Your task to perform on an android device: Search for seafood restaurants on Google Maps Image 0: 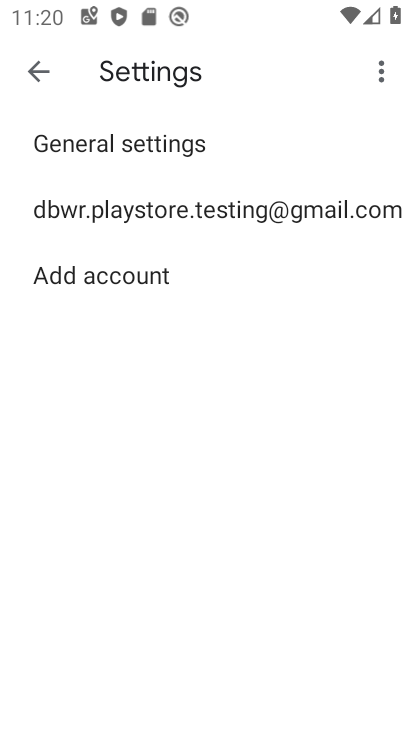
Step 0: press home button
Your task to perform on an android device: Search for seafood restaurants on Google Maps Image 1: 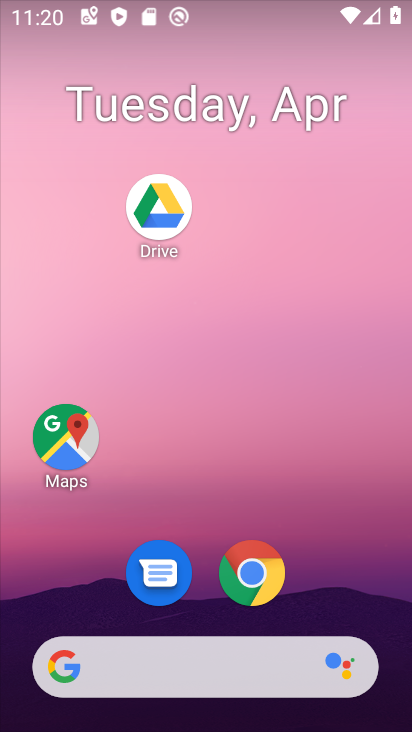
Step 1: drag from (339, 582) to (322, 84)
Your task to perform on an android device: Search for seafood restaurants on Google Maps Image 2: 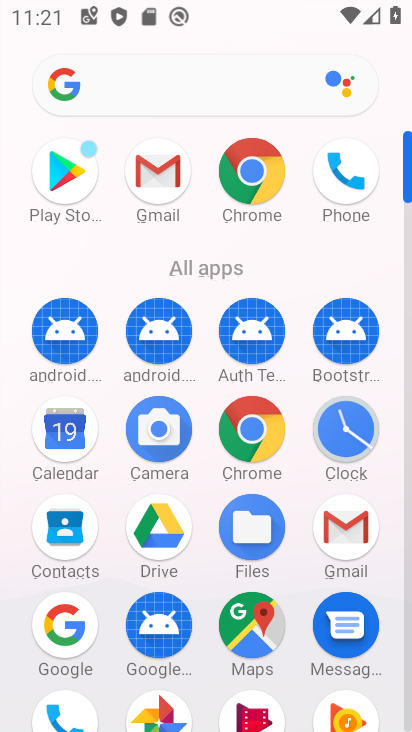
Step 2: drag from (385, 570) to (379, 232)
Your task to perform on an android device: Search for seafood restaurants on Google Maps Image 3: 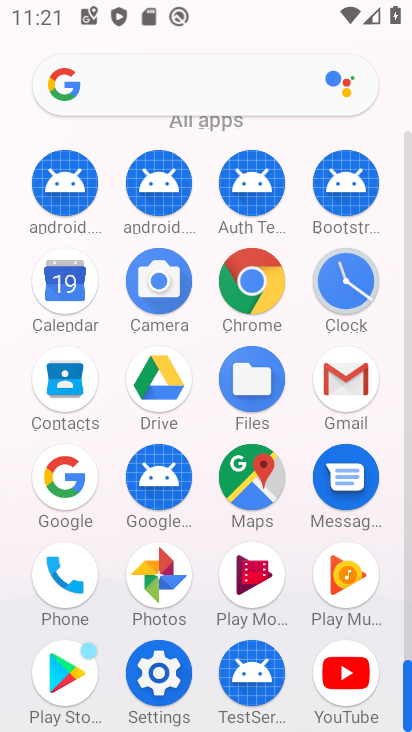
Step 3: click (238, 497)
Your task to perform on an android device: Search for seafood restaurants on Google Maps Image 4: 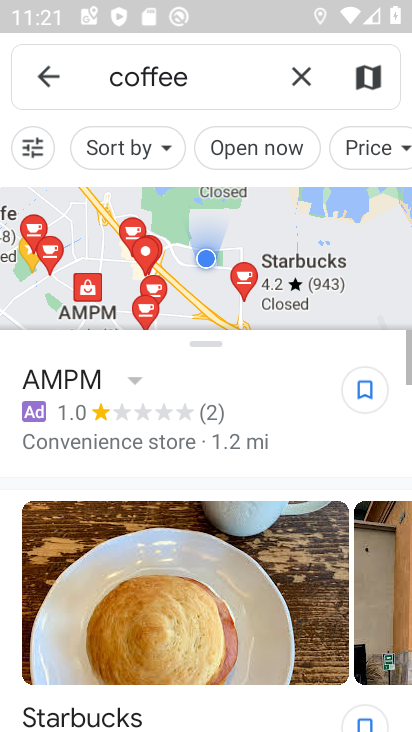
Step 4: click (300, 80)
Your task to perform on an android device: Search for seafood restaurants on Google Maps Image 5: 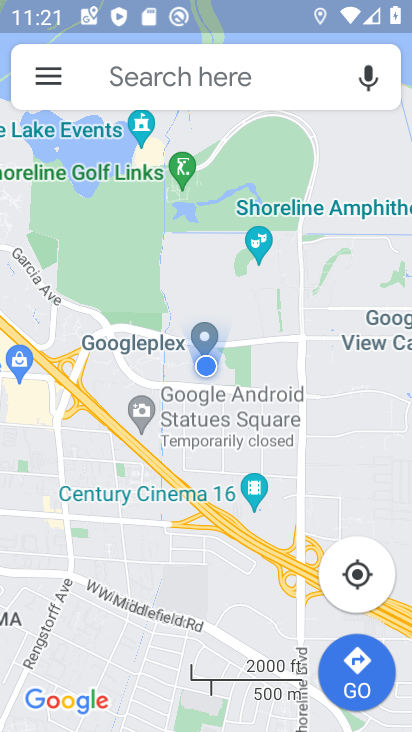
Step 5: click (241, 85)
Your task to perform on an android device: Search for seafood restaurants on Google Maps Image 6: 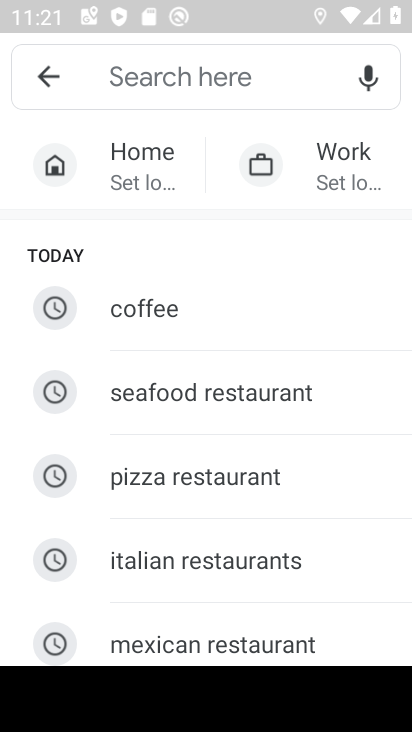
Step 6: type "seafood restaurants"
Your task to perform on an android device: Search for seafood restaurants on Google Maps Image 7: 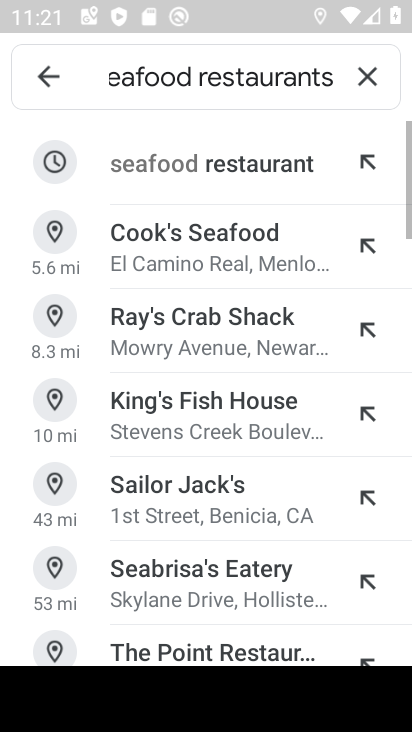
Step 7: click (251, 162)
Your task to perform on an android device: Search for seafood restaurants on Google Maps Image 8: 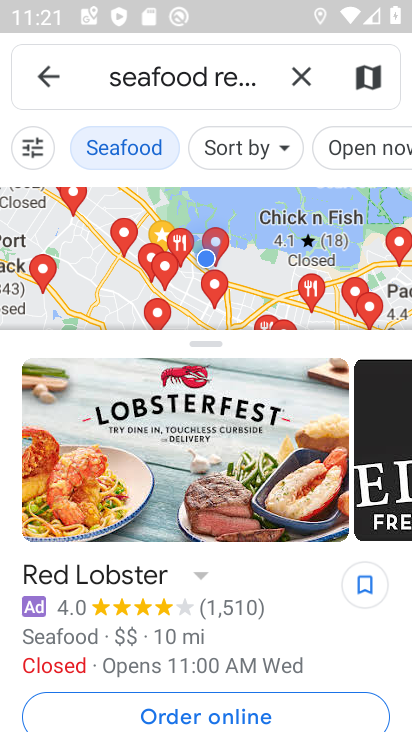
Step 8: task complete